Your task to perform on an android device: empty trash in google photos Image 0: 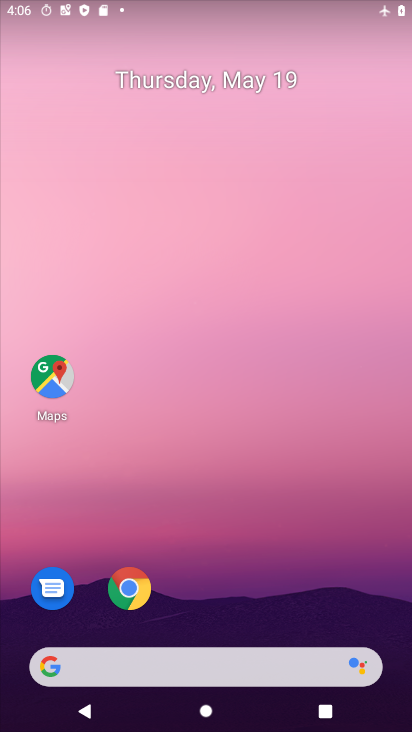
Step 0: drag from (209, 616) to (262, 3)
Your task to perform on an android device: empty trash in google photos Image 1: 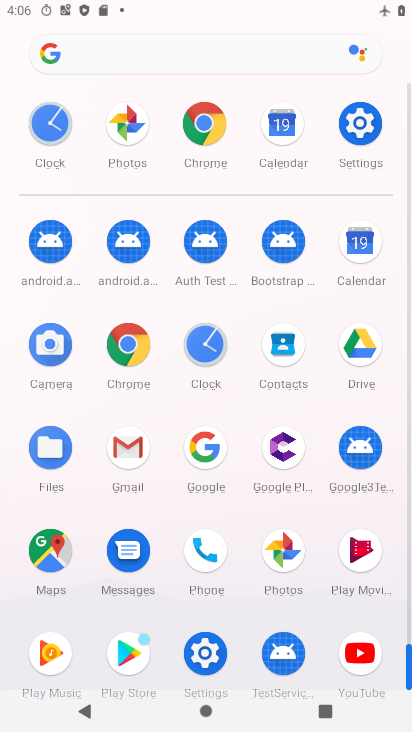
Step 1: click (281, 554)
Your task to perform on an android device: empty trash in google photos Image 2: 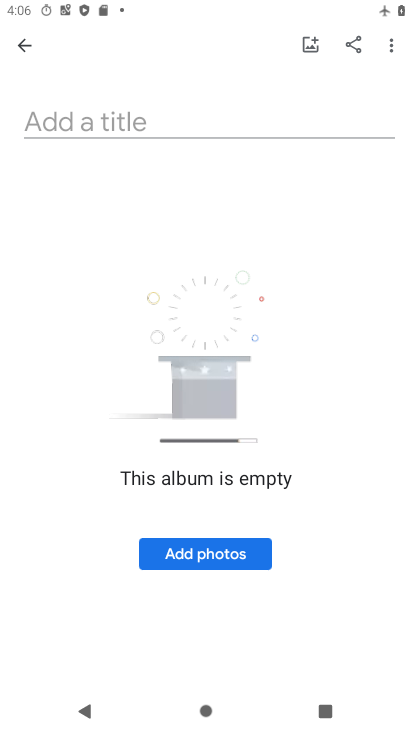
Step 2: click (25, 45)
Your task to perform on an android device: empty trash in google photos Image 3: 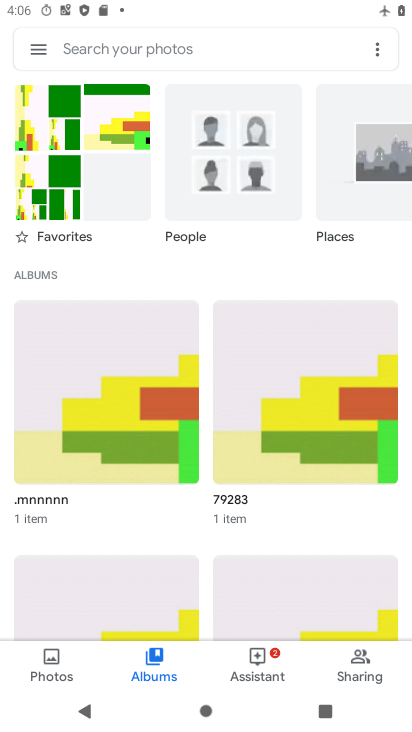
Step 3: click (43, 60)
Your task to perform on an android device: empty trash in google photos Image 4: 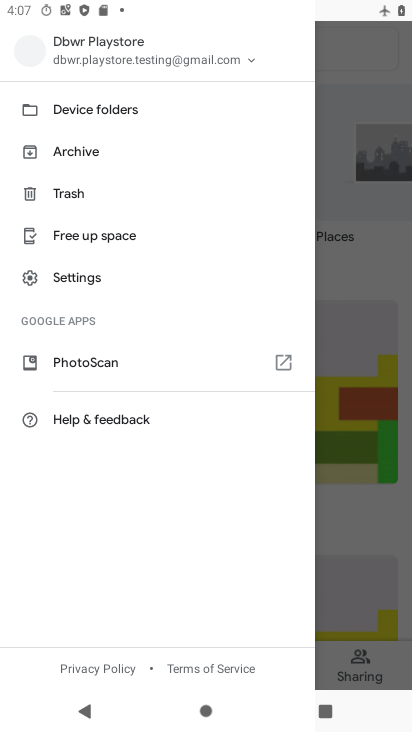
Step 4: click (78, 199)
Your task to perform on an android device: empty trash in google photos Image 5: 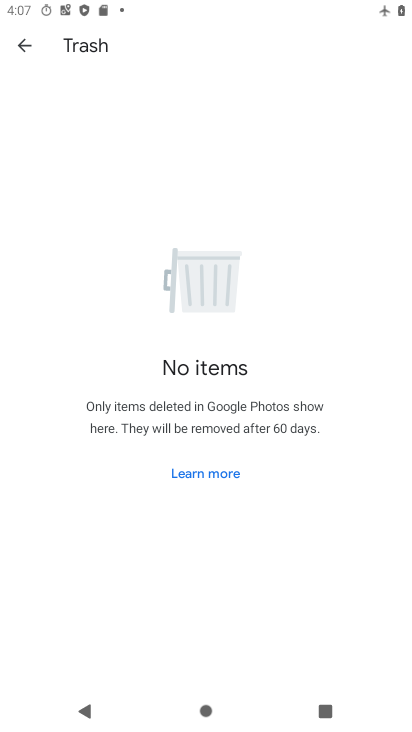
Step 5: task complete